Your task to perform on an android device: delete browsing data in the chrome app Image 0: 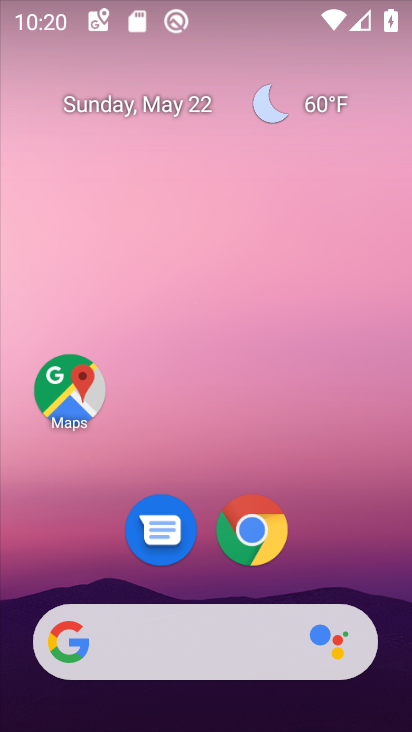
Step 0: click (253, 531)
Your task to perform on an android device: delete browsing data in the chrome app Image 1: 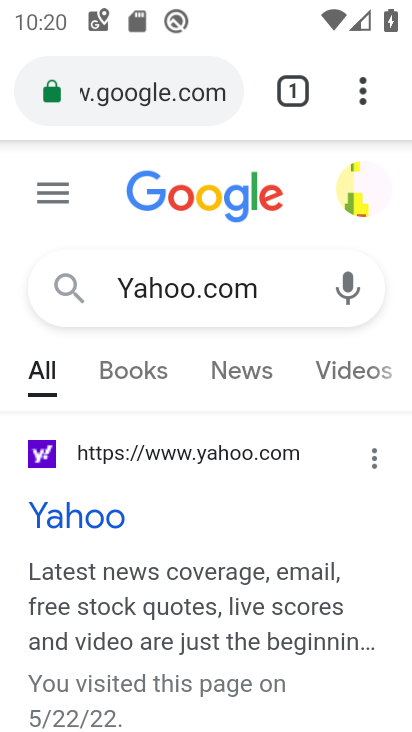
Step 1: click (362, 93)
Your task to perform on an android device: delete browsing data in the chrome app Image 2: 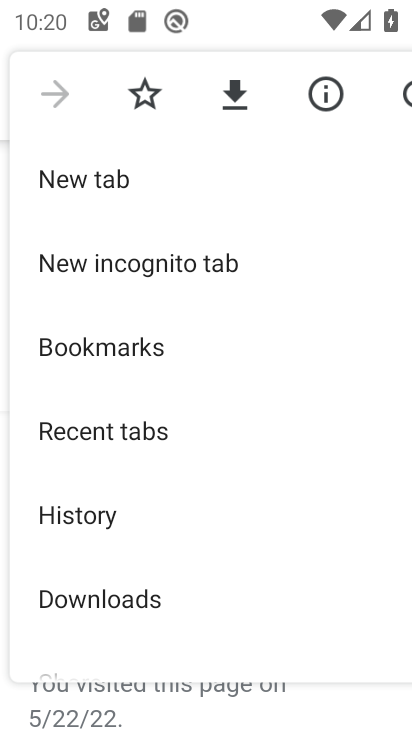
Step 2: drag from (239, 616) to (274, 242)
Your task to perform on an android device: delete browsing data in the chrome app Image 3: 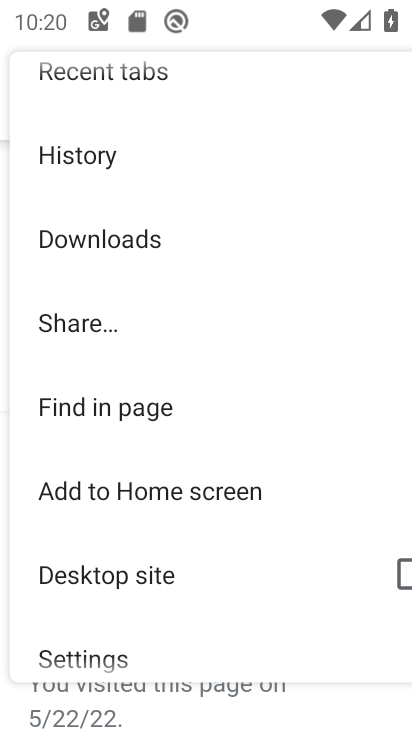
Step 3: click (85, 154)
Your task to perform on an android device: delete browsing data in the chrome app Image 4: 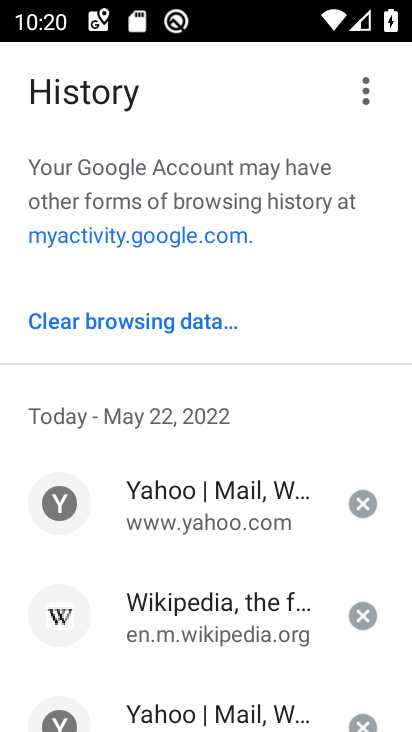
Step 4: click (154, 184)
Your task to perform on an android device: delete browsing data in the chrome app Image 5: 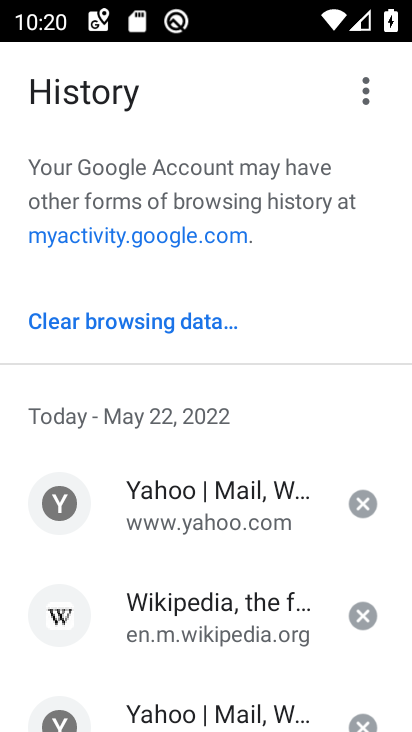
Step 5: click (143, 318)
Your task to perform on an android device: delete browsing data in the chrome app Image 6: 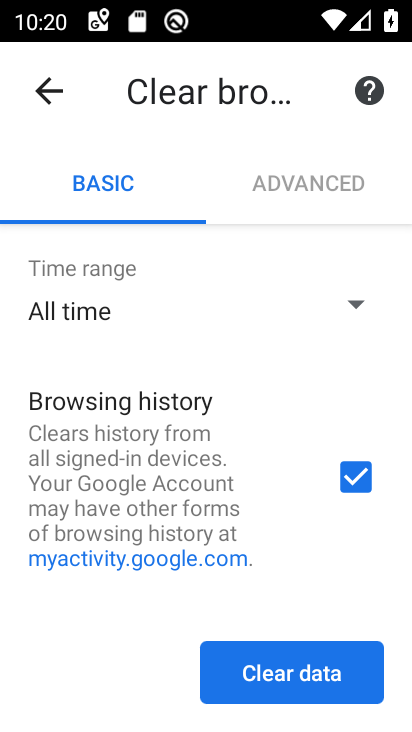
Step 6: click (279, 676)
Your task to perform on an android device: delete browsing data in the chrome app Image 7: 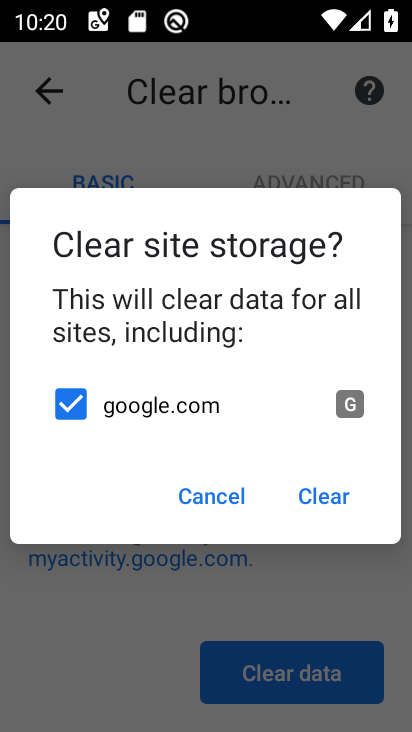
Step 7: click (320, 489)
Your task to perform on an android device: delete browsing data in the chrome app Image 8: 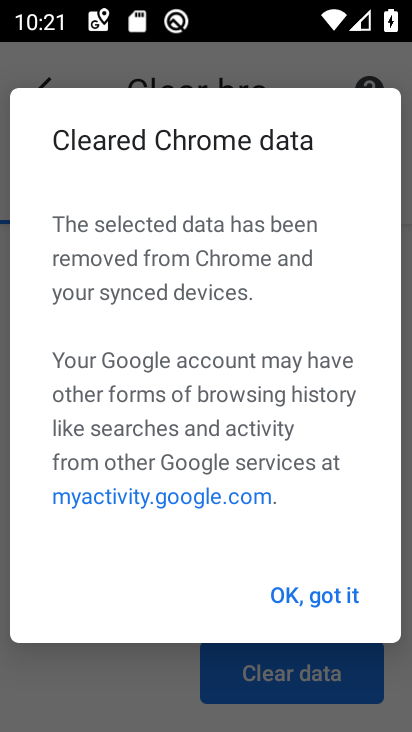
Step 8: click (312, 598)
Your task to perform on an android device: delete browsing data in the chrome app Image 9: 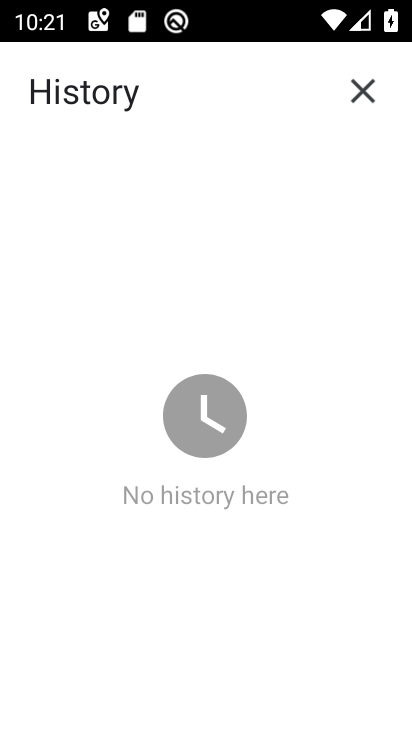
Step 9: task complete